Your task to perform on an android device: turn on showing notifications on the lock screen Image 0: 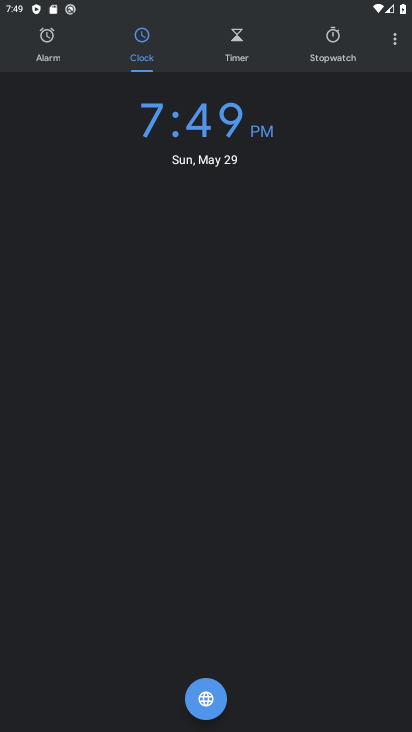
Step 0: press home button
Your task to perform on an android device: turn on showing notifications on the lock screen Image 1: 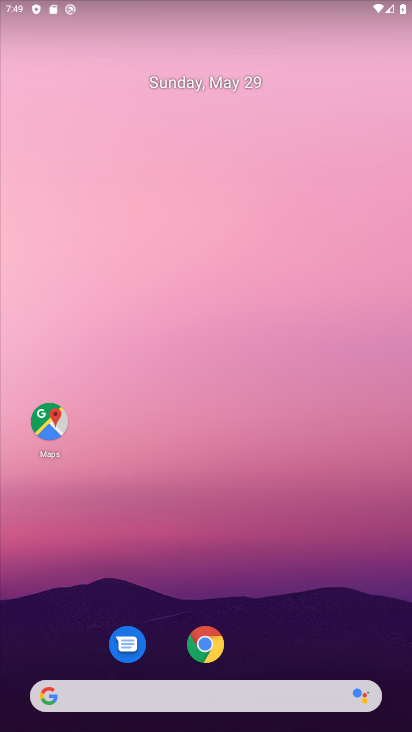
Step 1: drag from (272, 621) to (312, 96)
Your task to perform on an android device: turn on showing notifications on the lock screen Image 2: 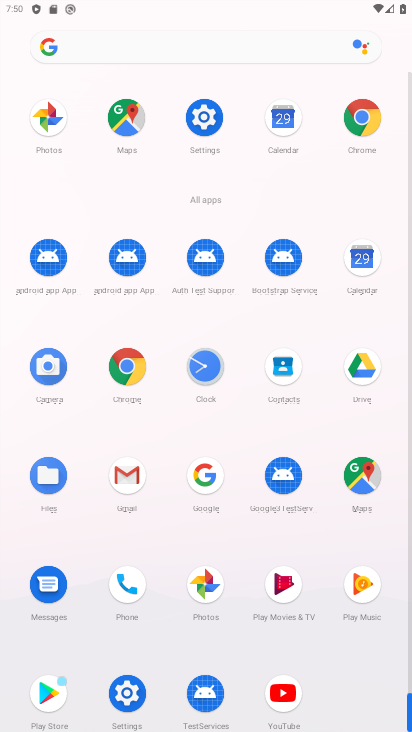
Step 2: drag from (286, 599) to (308, 177)
Your task to perform on an android device: turn on showing notifications on the lock screen Image 3: 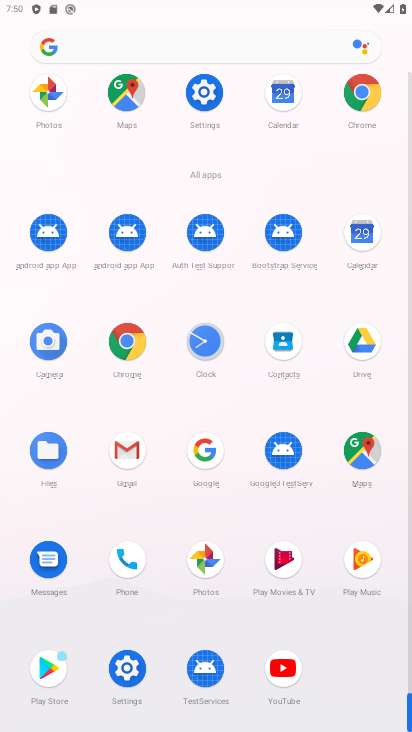
Step 3: click (132, 664)
Your task to perform on an android device: turn on showing notifications on the lock screen Image 4: 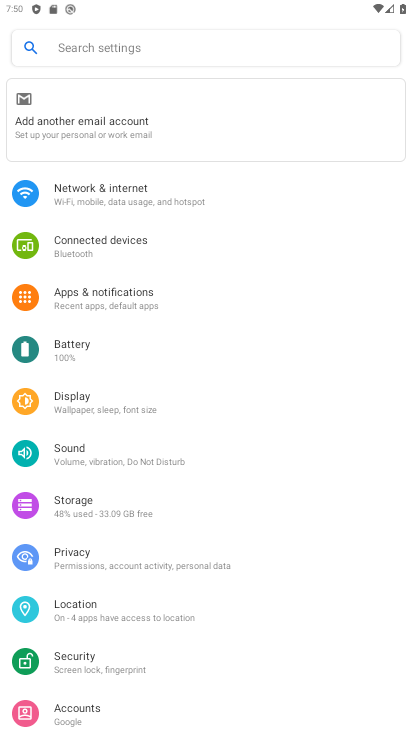
Step 4: click (173, 295)
Your task to perform on an android device: turn on showing notifications on the lock screen Image 5: 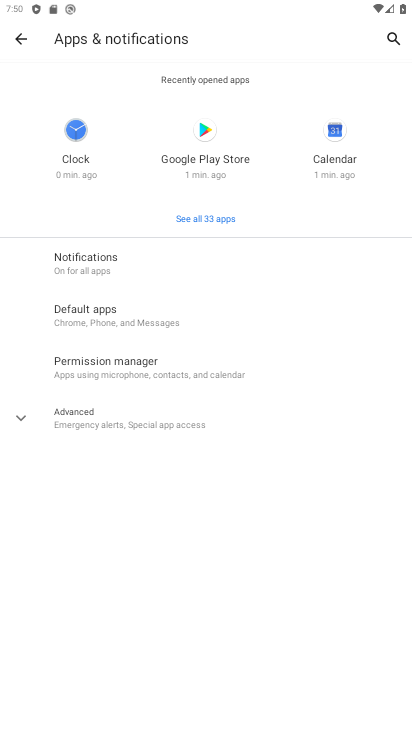
Step 5: click (167, 275)
Your task to perform on an android device: turn on showing notifications on the lock screen Image 6: 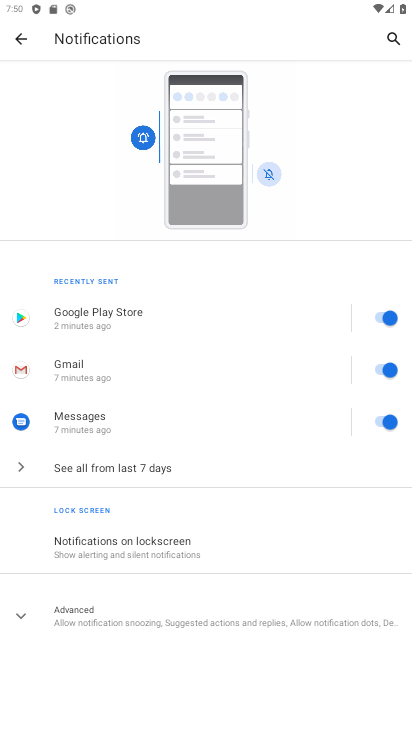
Step 6: click (180, 543)
Your task to perform on an android device: turn on showing notifications on the lock screen Image 7: 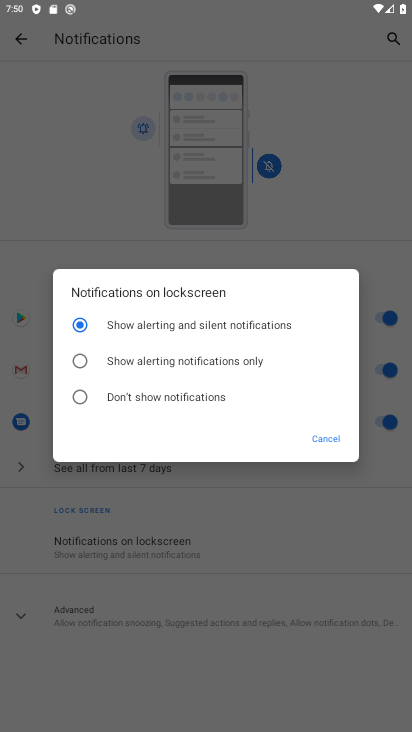
Step 7: click (311, 437)
Your task to perform on an android device: turn on showing notifications on the lock screen Image 8: 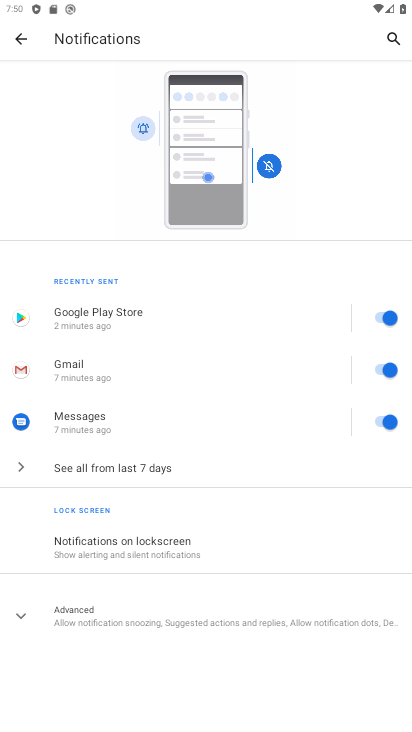
Step 8: task complete